Your task to perform on an android device: Go to Wikipedia Image 0: 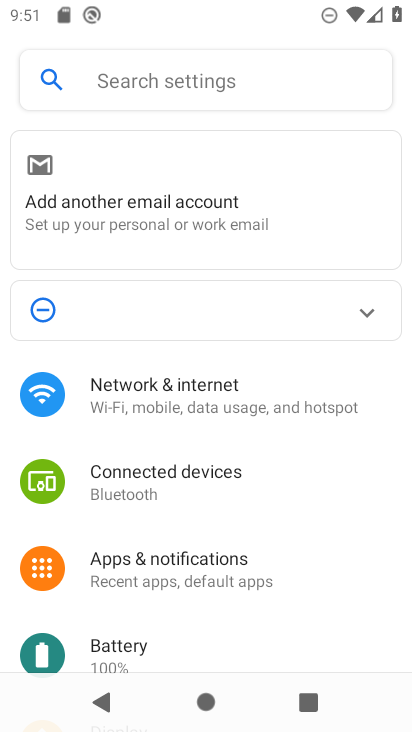
Step 0: press home button
Your task to perform on an android device: Go to Wikipedia Image 1: 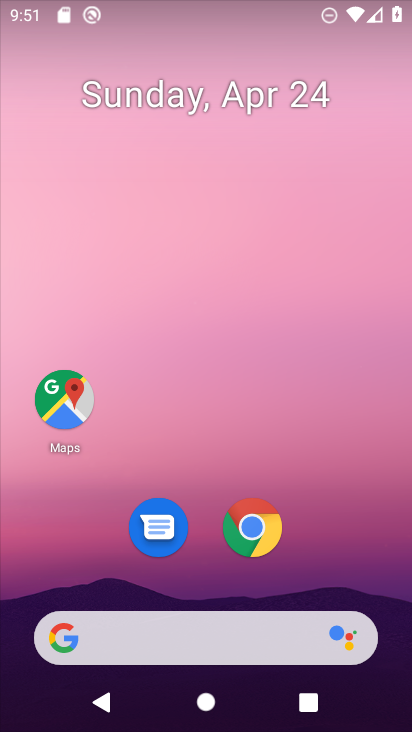
Step 1: drag from (398, 632) to (314, 68)
Your task to perform on an android device: Go to Wikipedia Image 2: 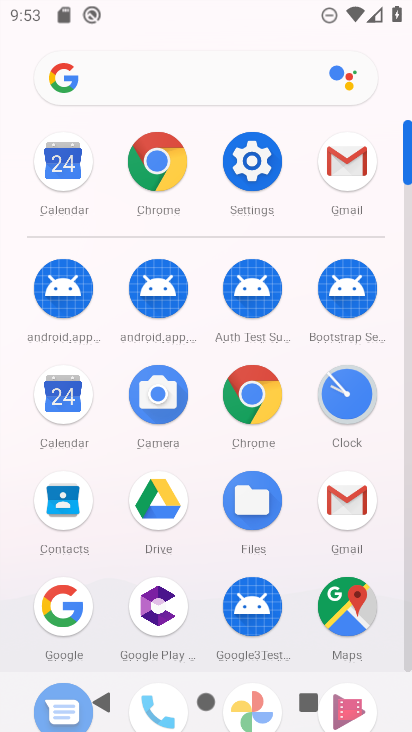
Step 2: click (263, 420)
Your task to perform on an android device: Go to Wikipedia Image 3: 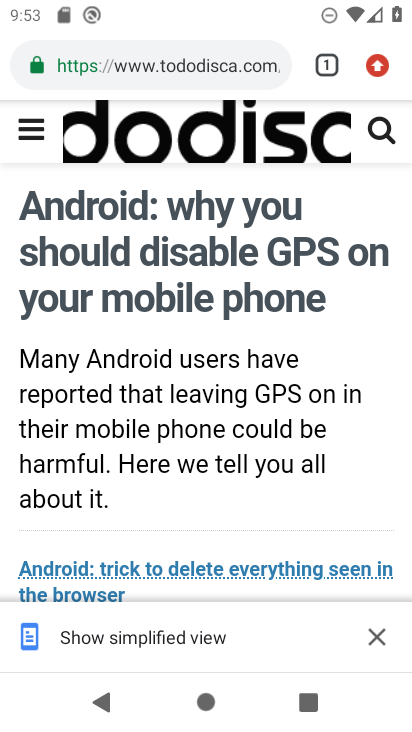
Step 3: press back button
Your task to perform on an android device: Go to Wikipedia Image 4: 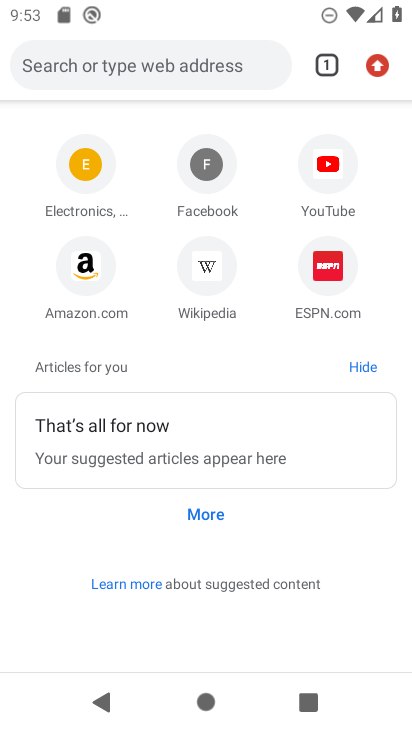
Step 4: click (192, 269)
Your task to perform on an android device: Go to Wikipedia Image 5: 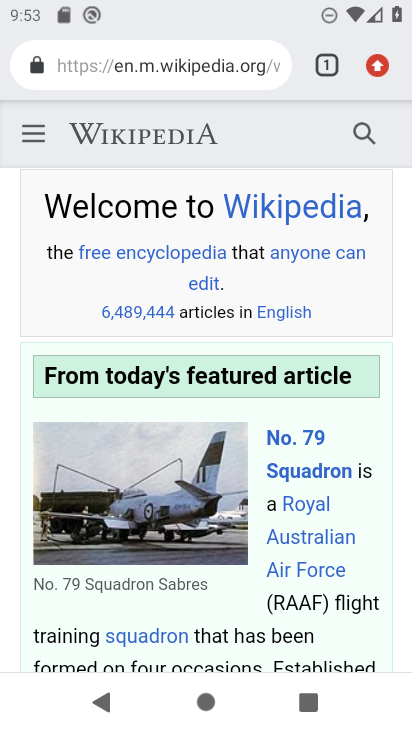
Step 5: task complete